Your task to perform on an android device: open app "Messages" (install if not already installed) and enter user name: "Hersey@inbox.com" and password: "facings" Image 0: 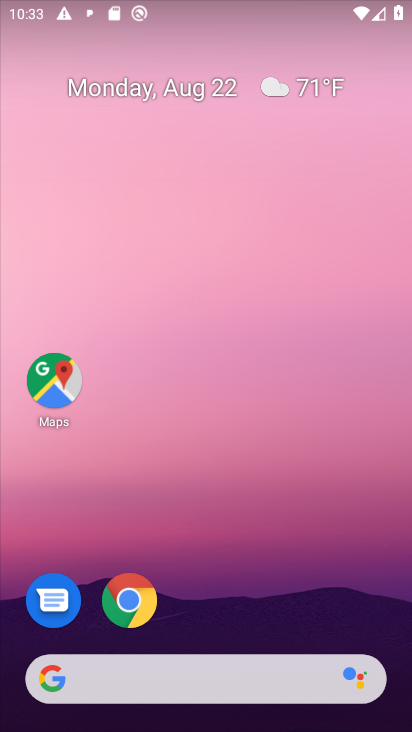
Step 0: drag from (196, 556) to (184, 162)
Your task to perform on an android device: open app "Messages" (install if not already installed) and enter user name: "Hersey@inbox.com" and password: "facings" Image 1: 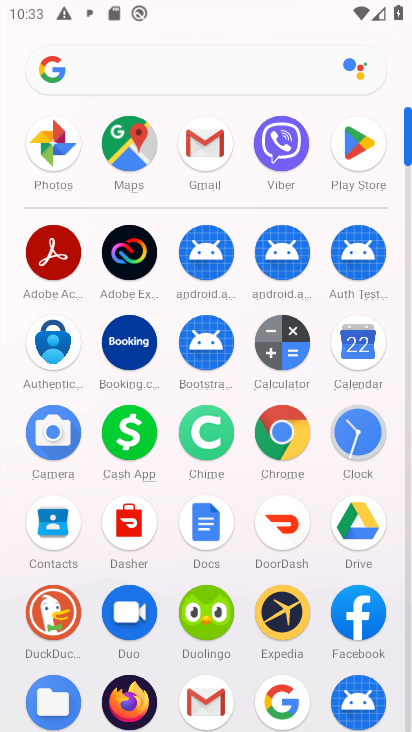
Step 1: click (338, 125)
Your task to perform on an android device: open app "Messages" (install if not already installed) and enter user name: "Hersey@inbox.com" and password: "facings" Image 2: 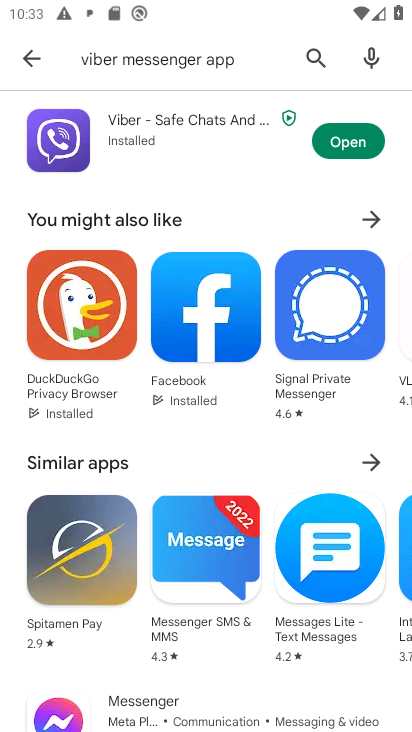
Step 2: click (370, 66)
Your task to perform on an android device: open app "Messages" (install if not already installed) and enter user name: "Hersey@inbox.com" and password: "facings" Image 3: 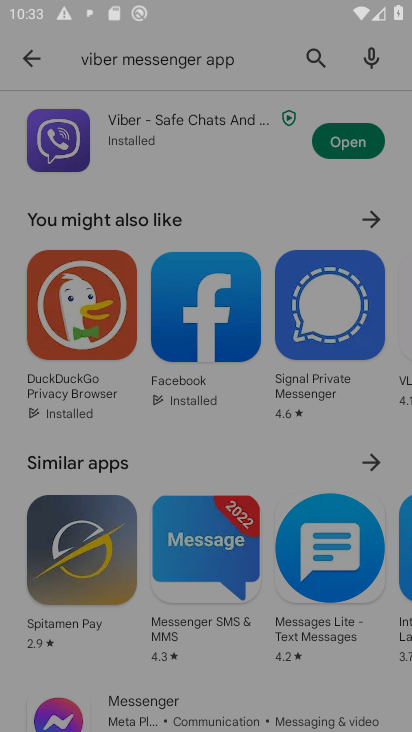
Step 3: click (329, 60)
Your task to perform on an android device: open app "Messages" (install if not already installed) and enter user name: "Hersey@inbox.com" and password: "facings" Image 4: 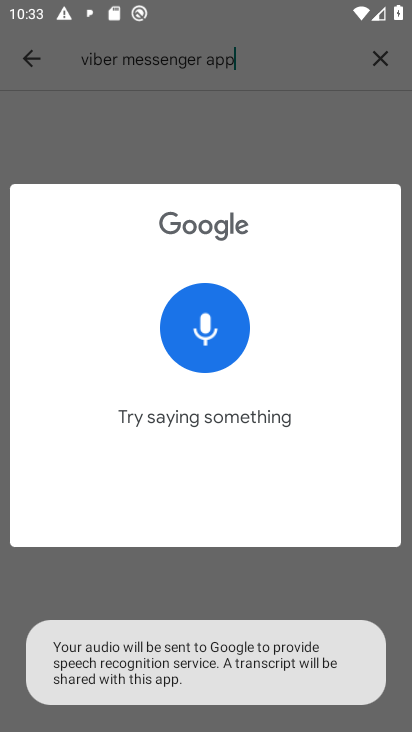
Step 4: click (324, 63)
Your task to perform on an android device: open app "Messages" (install if not already installed) and enter user name: "Hersey@inbox.com" and password: "facings" Image 5: 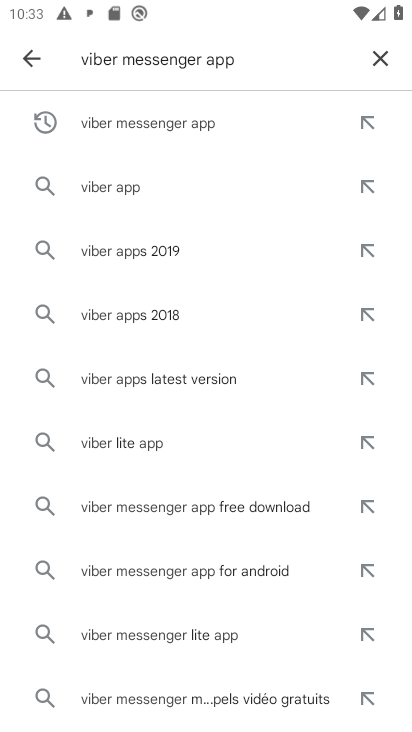
Step 5: click (385, 44)
Your task to perform on an android device: open app "Messages" (install if not already installed) and enter user name: "Hersey@inbox.com" and password: "facings" Image 6: 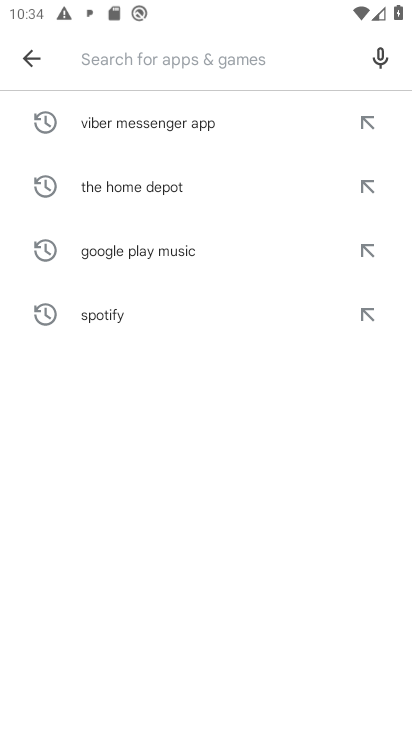
Step 6: type "Messages"
Your task to perform on an android device: open app "Messages" (install if not already installed) and enter user name: "Hersey@inbox.com" and password: "facings" Image 7: 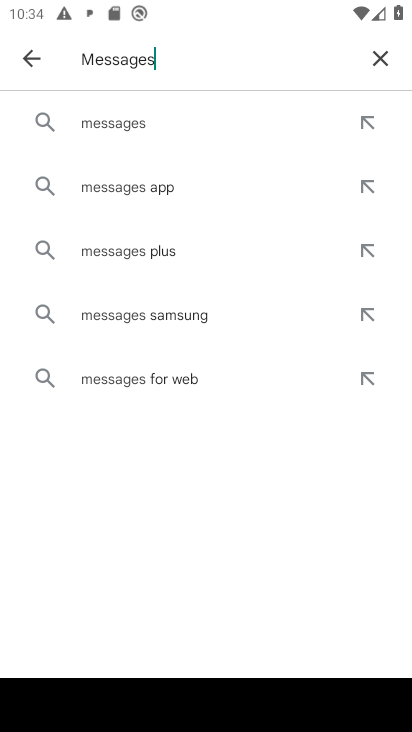
Step 7: type ""
Your task to perform on an android device: open app "Messages" (install if not already installed) and enter user name: "Hersey@inbox.com" and password: "facings" Image 8: 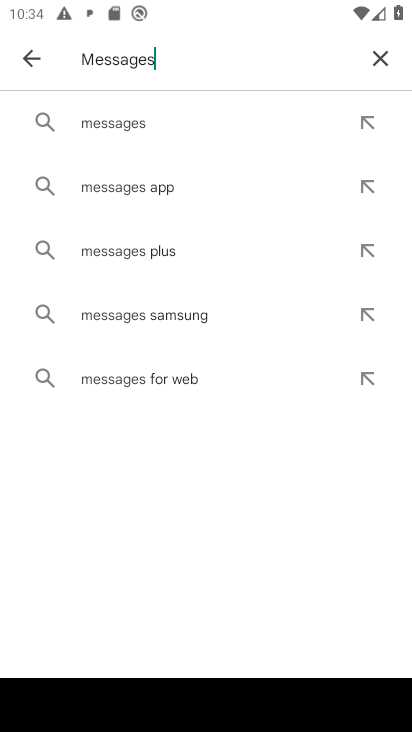
Step 8: click (166, 126)
Your task to perform on an android device: open app "Messages" (install if not already installed) and enter user name: "Hersey@inbox.com" and password: "facings" Image 9: 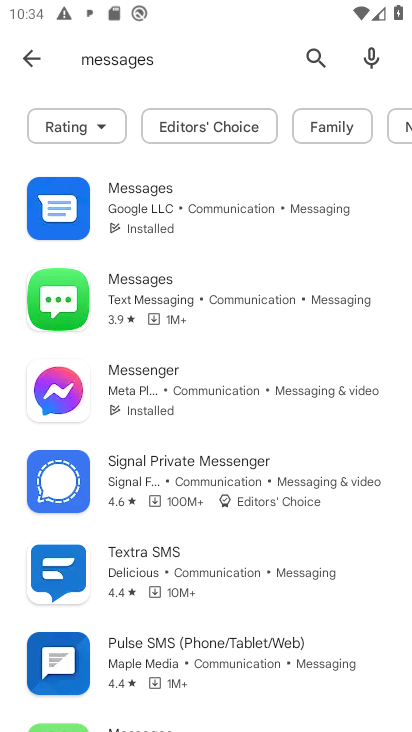
Step 9: click (198, 199)
Your task to perform on an android device: open app "Messages" (install if not already installed) and enter user name: "Hersey@inbox.com" and password: "facings" Image 10: 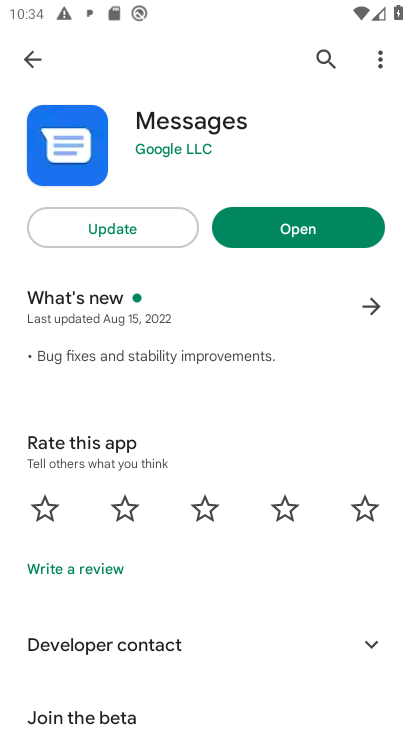
Step 10: click (302, 226)
Your task to perform on an android device: open app "Messages" (install if not already installed) and enter user name: "Hersey@inbox.com" and password: "facings" Image 11: 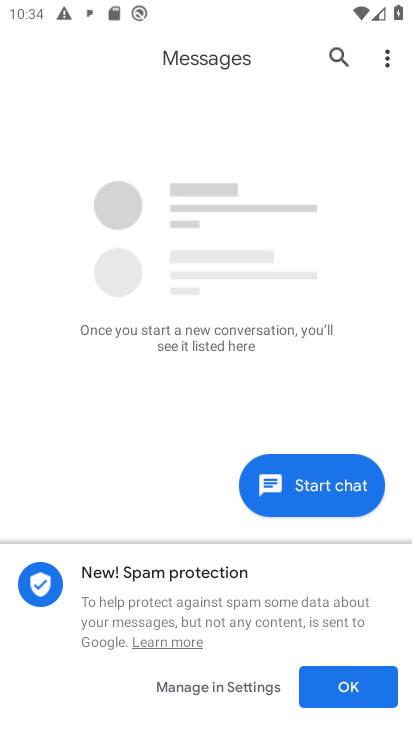
Step 11: task complete